Your task to perform on an android device: star an email in the gmail app Image 0: 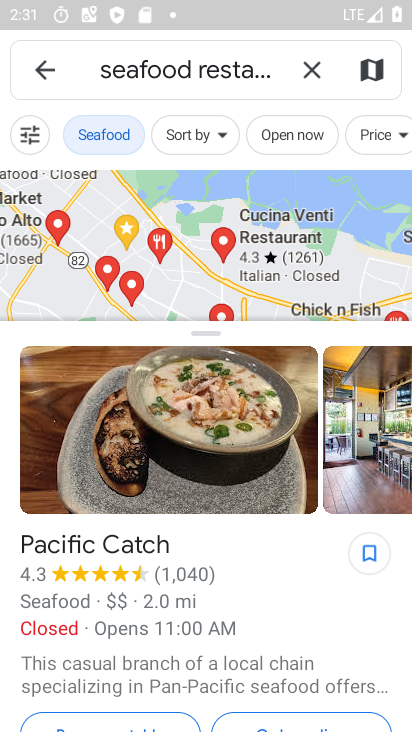
Step 0: press home button
Your task to perform on an android device: star an email in the gmail app Image 1: 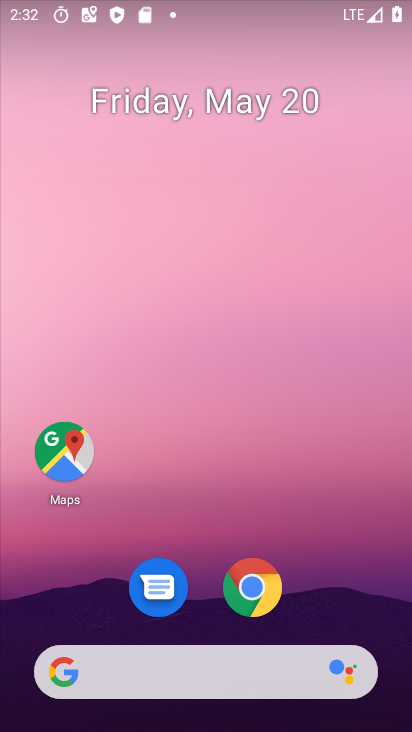
Step 1: drag from (329, 584) to (301, 121)
Your task to perform on an android device: star an email in the gmail app Image 2: 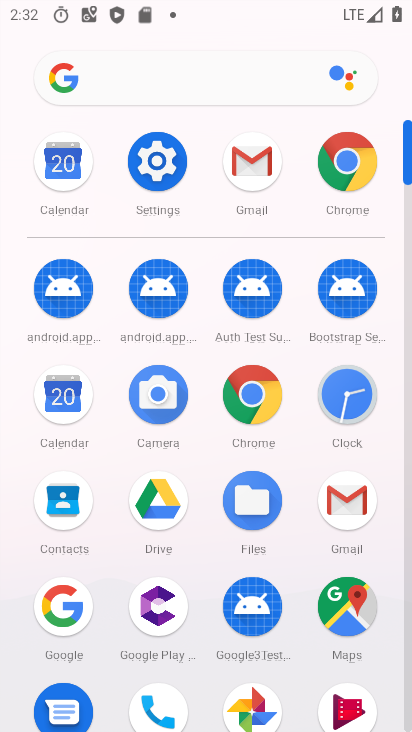
Step 2: click (260, 171)
Your task to perform on an android device: star an email in the gmail app Image 3: 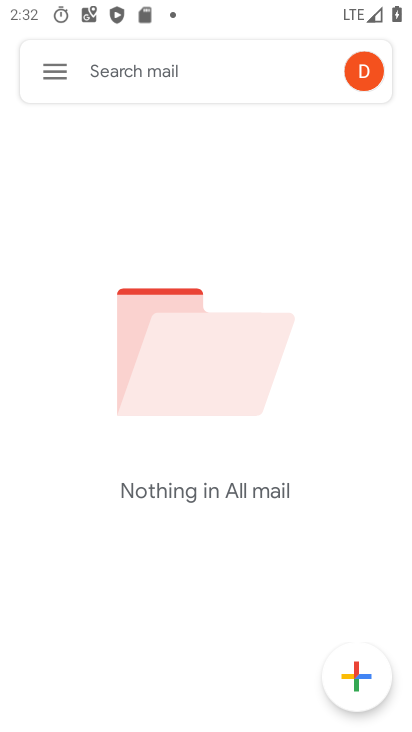
Step 3: click (59, 80)
Your task to perform on an android device: star an email in the gmail app Image 4: 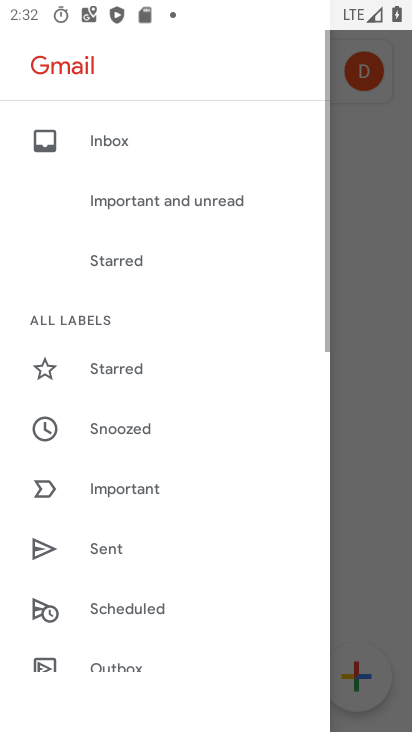
Step 4: drag from (138, 503) to (280, 260)
Your task to perform on an android device: star an email in the gmail app Image 5: 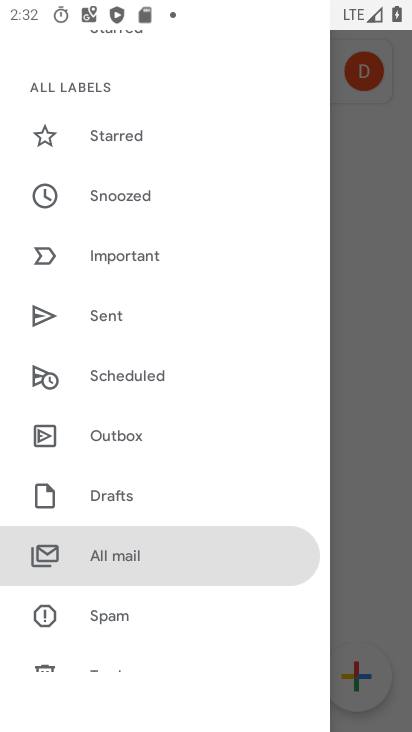
Step 5: click (87, 552)
Your task to perform on an android device: star an email in the gmail app Image 6: 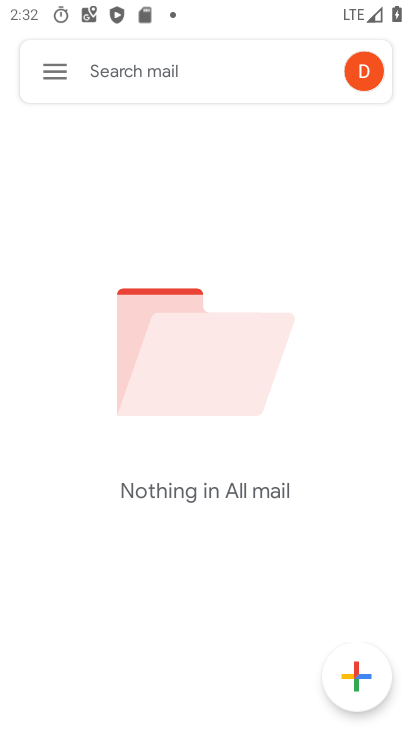
Step 6: task complete